Your task to perform on an android device: Search for pizza restaurants on Maps Image 0: 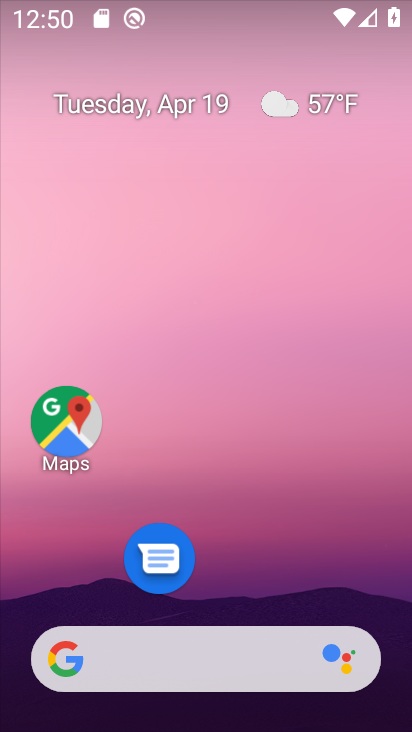
Step 0: click (49, 429)
Your task to perform on an android device: Search for pizza restaurants on Maps Image 1: 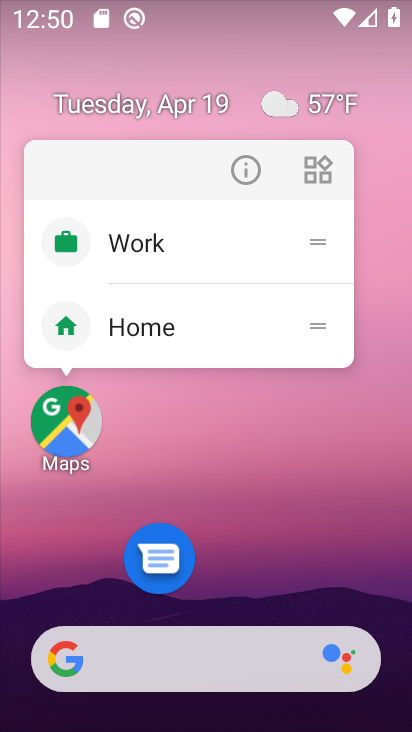
Step 1: click (49, 428)
Your task to perform on an android device: Search for pizza restaurants on Maps Image 2: 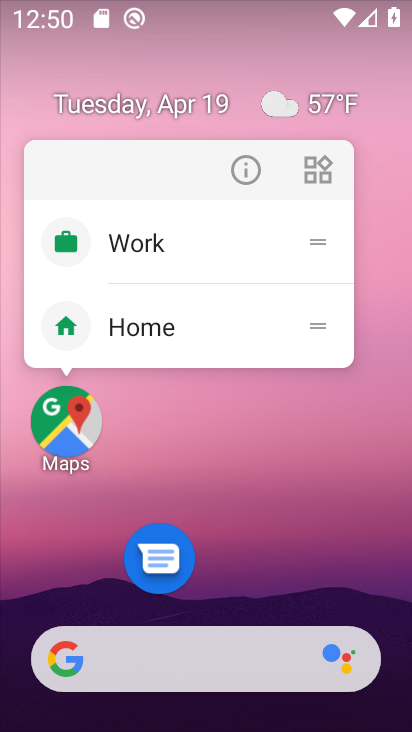
Step 2: click (77, 432)
Your task to perform on an android device: Search for pizza restaurants on Maps Image 3: 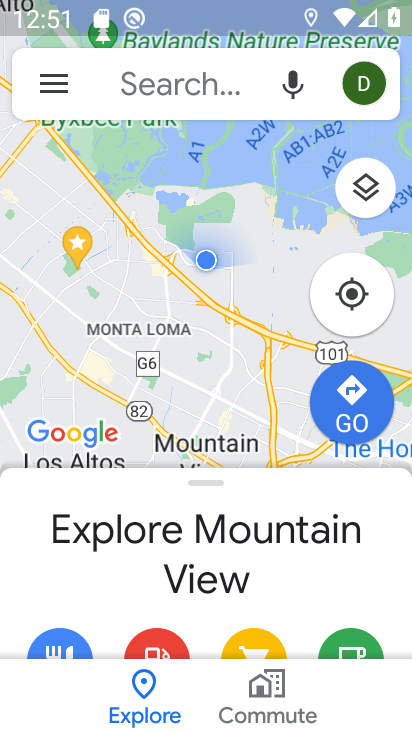
Step 3: click (182, 77)
Your task to perform on an android device: Search for pizza restaurants on Maps Image 4: 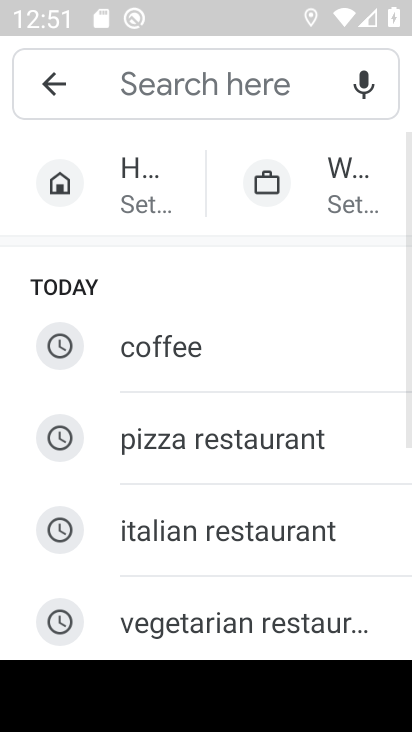
Step 4: click (274, 441)
Your task to perform on an android device: Search for pizza restaurants on Maps Image 5: 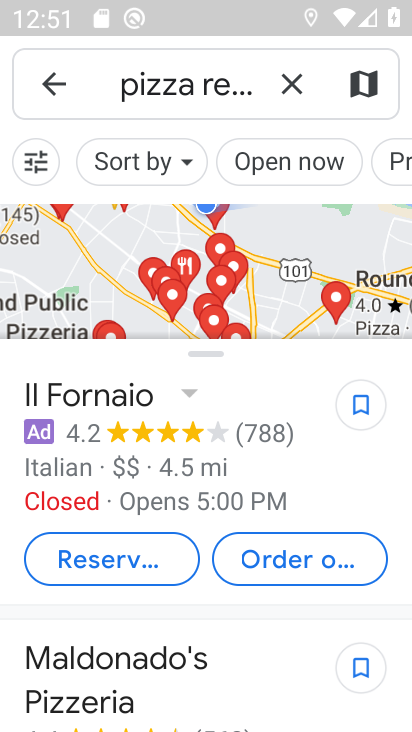
Step 5: task complete